Your task to perform on an android device: open app "NewsBreak: Local News & Alerts" (install if not already installed) Image 0: 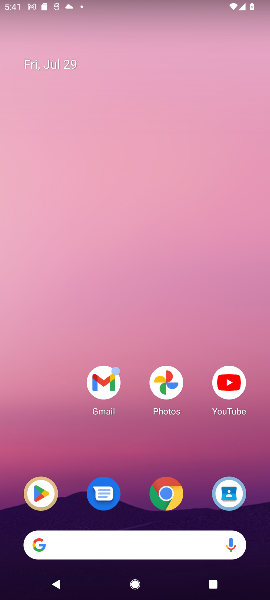
Step 0: drag from (156, 589) to (129, 60)
Your task to perform on an android device: open app "NewsBreak: Local News & Alerts" (install if not already installed) Image 1: 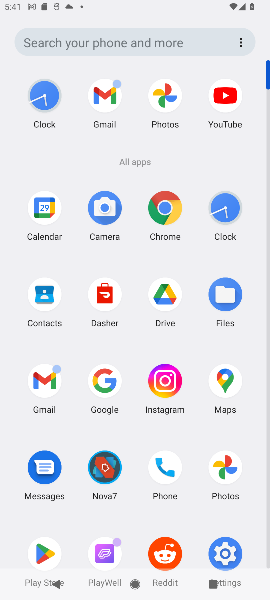
Step 1: click (40, 558)
Your task to perform on an android device: open app "NewsBreak: Local News & Alerts" (install if not already installed) Image 2: 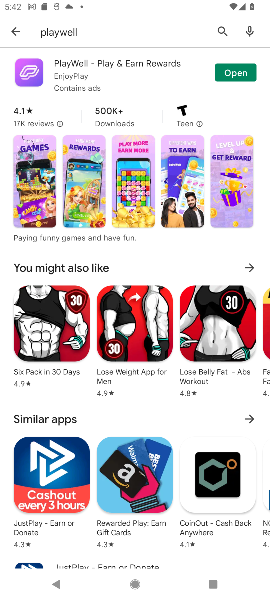
Step 2: click (220, 28)
Your task to perform on an android device: open app "NewsBreak: Local News & Alerts" (install if not already installed) Image 3: 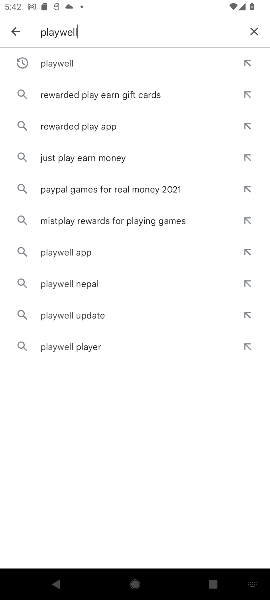
Step 3: click (254, 28)
Your task to perform on an android device: open app "NewsBreak: Local News & Alerts" (install if not already installed) Image 4: 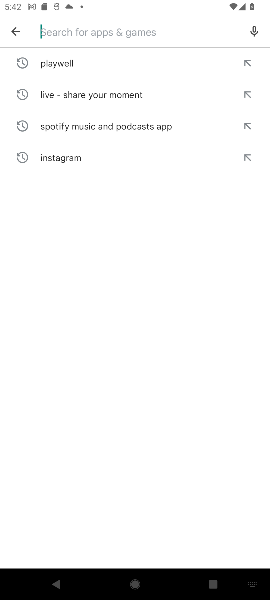
Step 4: type "NewsBreak: Local News & Alerts"
Your task to perform on an android device: open app "NewsBreak: Local News & Alerts" (install if not already installed) Image 5: 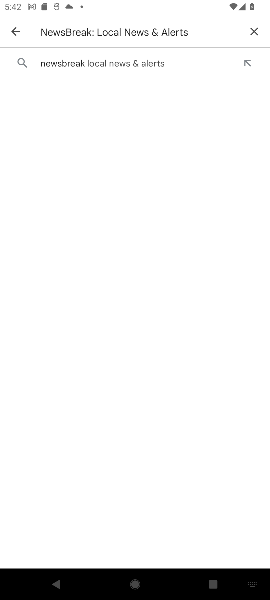
Step 5: click (76, 61)
Your task to perform on an android device: open app "NewsBreak: Local News & Alerts" (install if not already installed) Image 6: 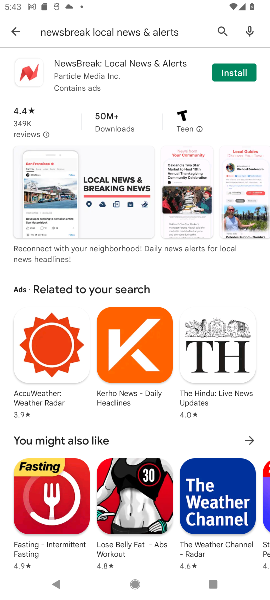
Step 6: click (230, 69)
Your task to perform on an android device: open app "NewsBreak: Local News & Alerts" (install if not already installed) Image 7: 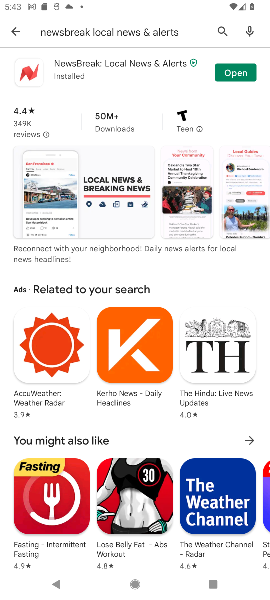
Step 7: click (224, 74)
Your task to perform on an android device: open app "NewsBreak: Local News & Alerts" (install if not already installed) Image 8: 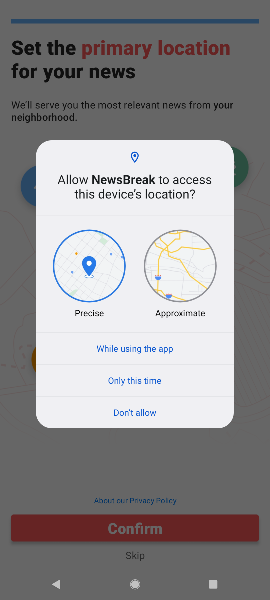
Step 8: task complete